Your task to perform on an android device: install app "Nova Launcher" Image 0: 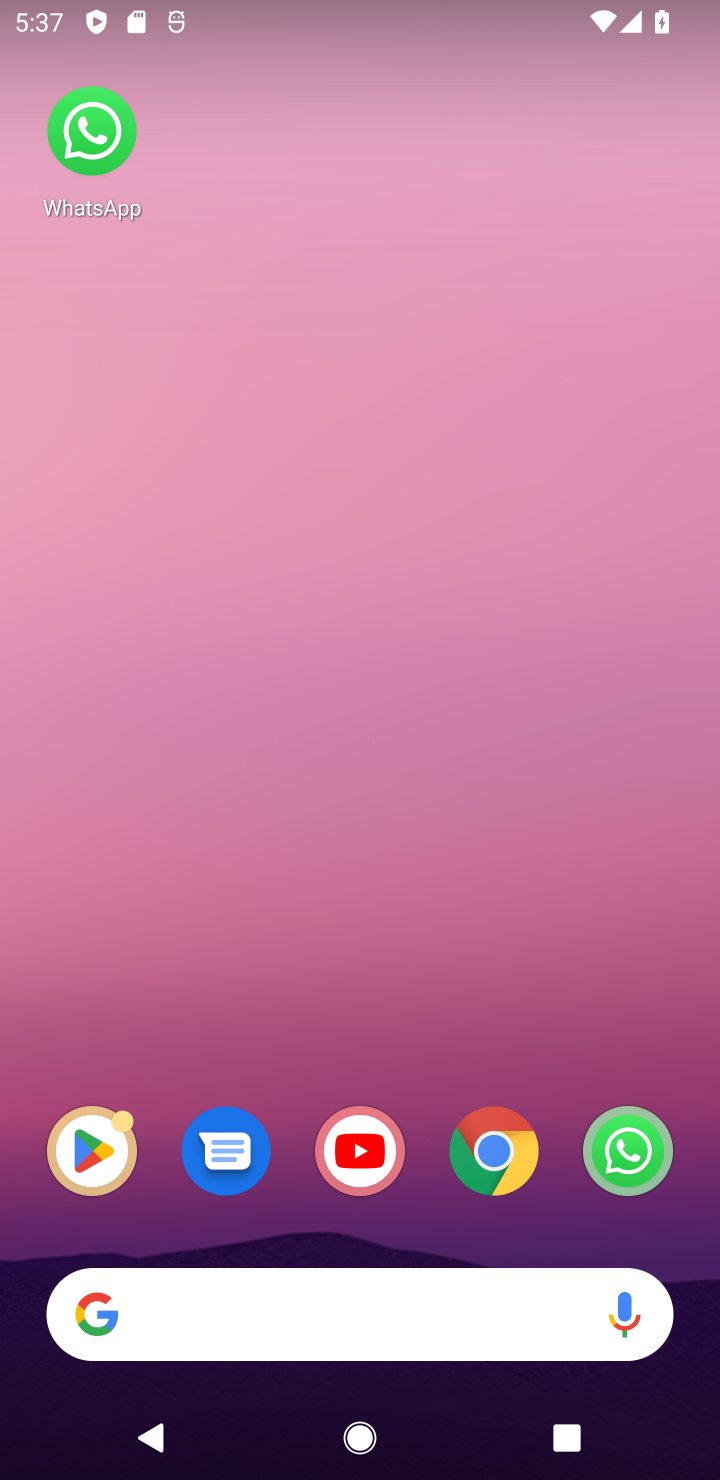
Step 0: click (108, 1161)
Your task to perform on an android device: install app "Nova Launcher" Image 1: 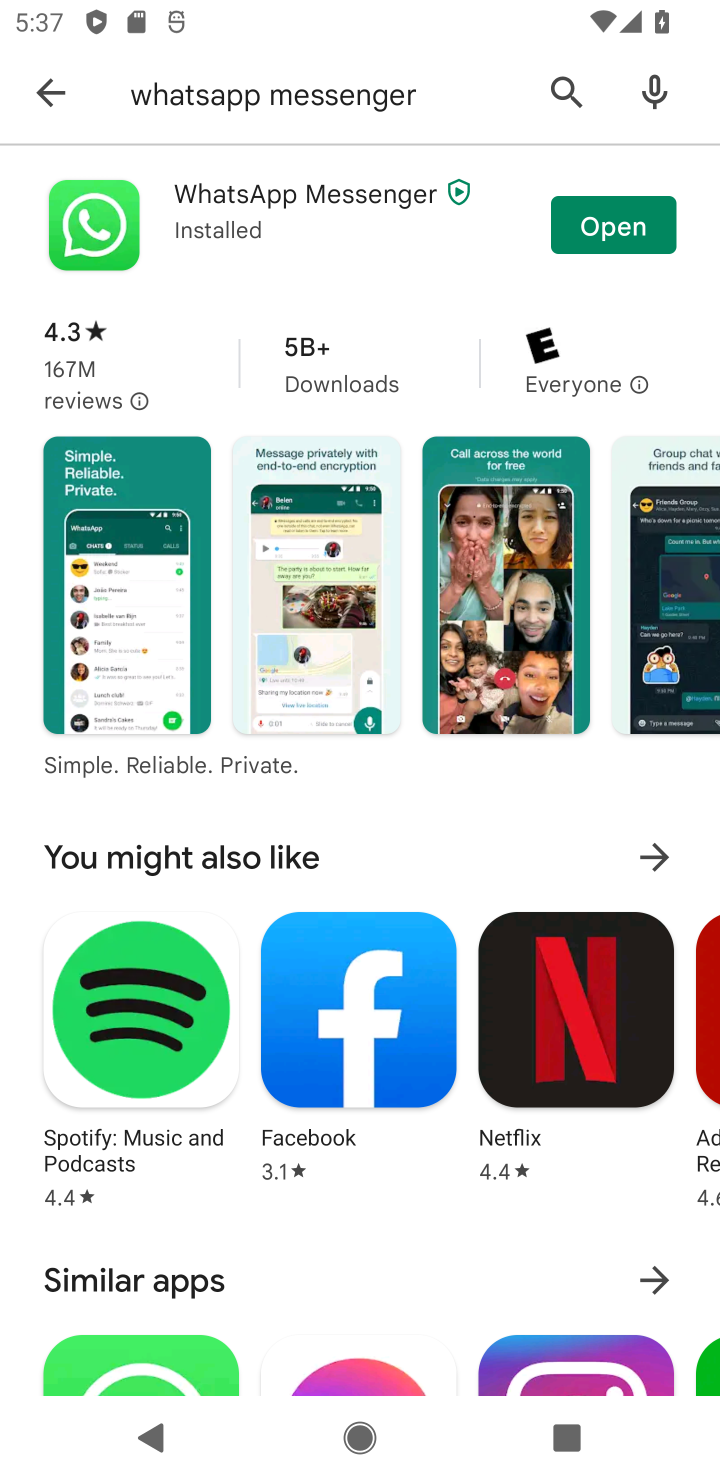
Step 1: click (570, 77)
Your task to perform on an android device: install app "Nova Launcher" Image 2: 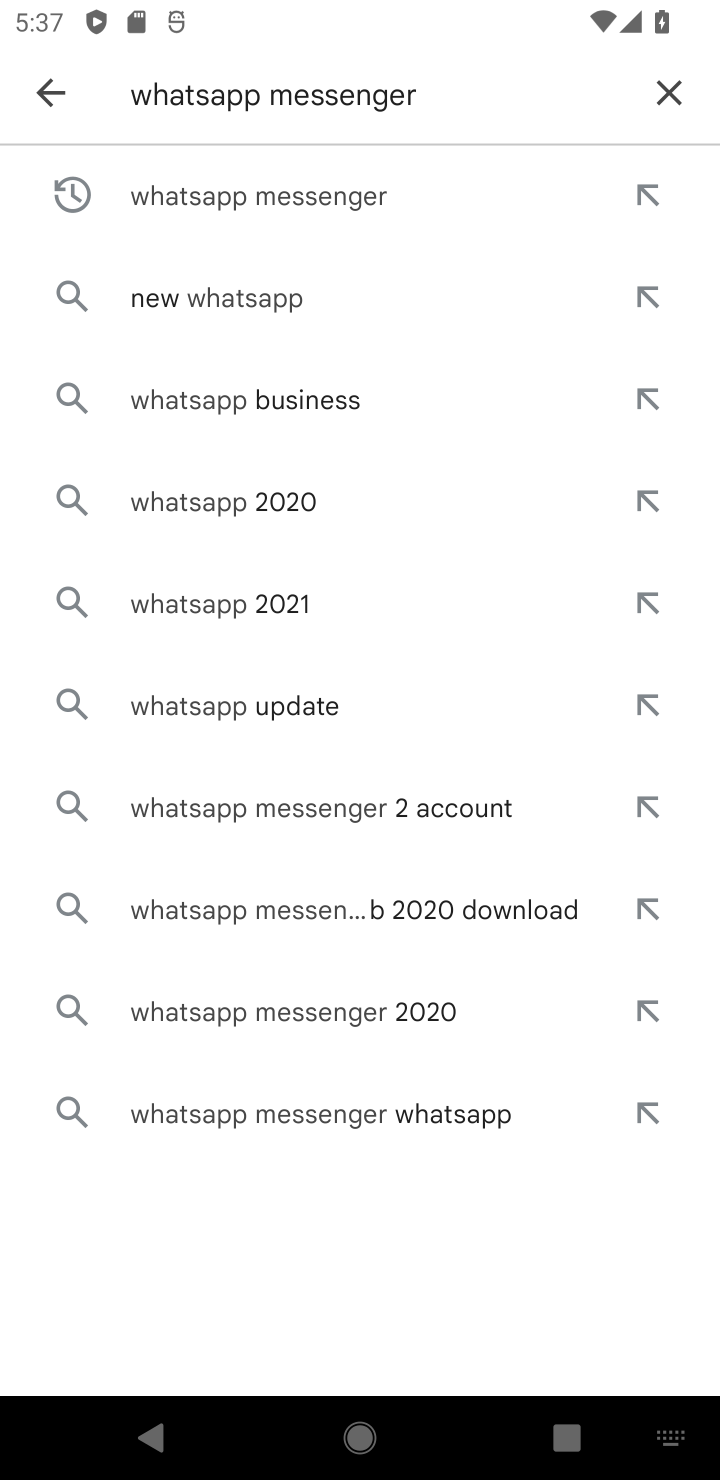
Step 2: click (671, 103)
Your task to perform on an android device: install app "Nova Launcher" Image 3: 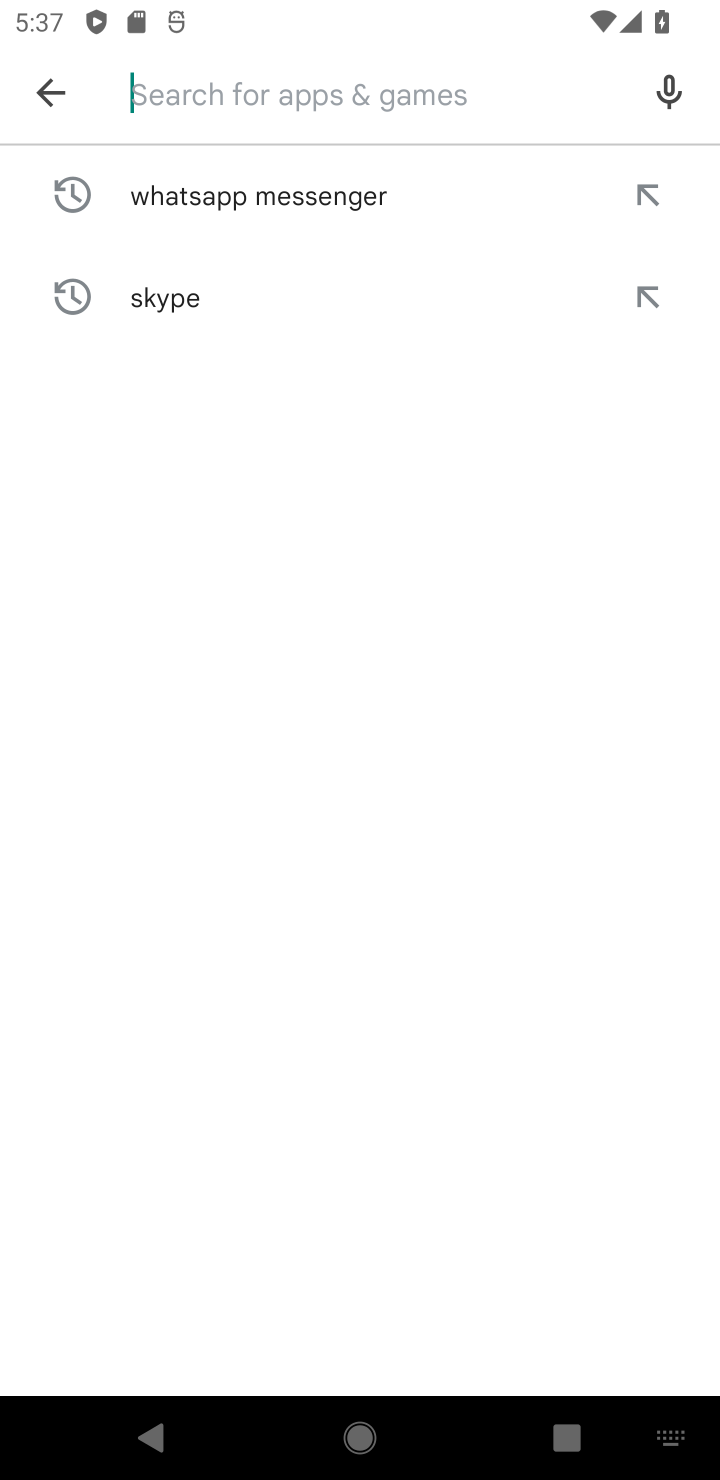
Step 3: type "Nova Launcher"
Your task to perform on an android device: install app "Nova Launcher" Image 4: 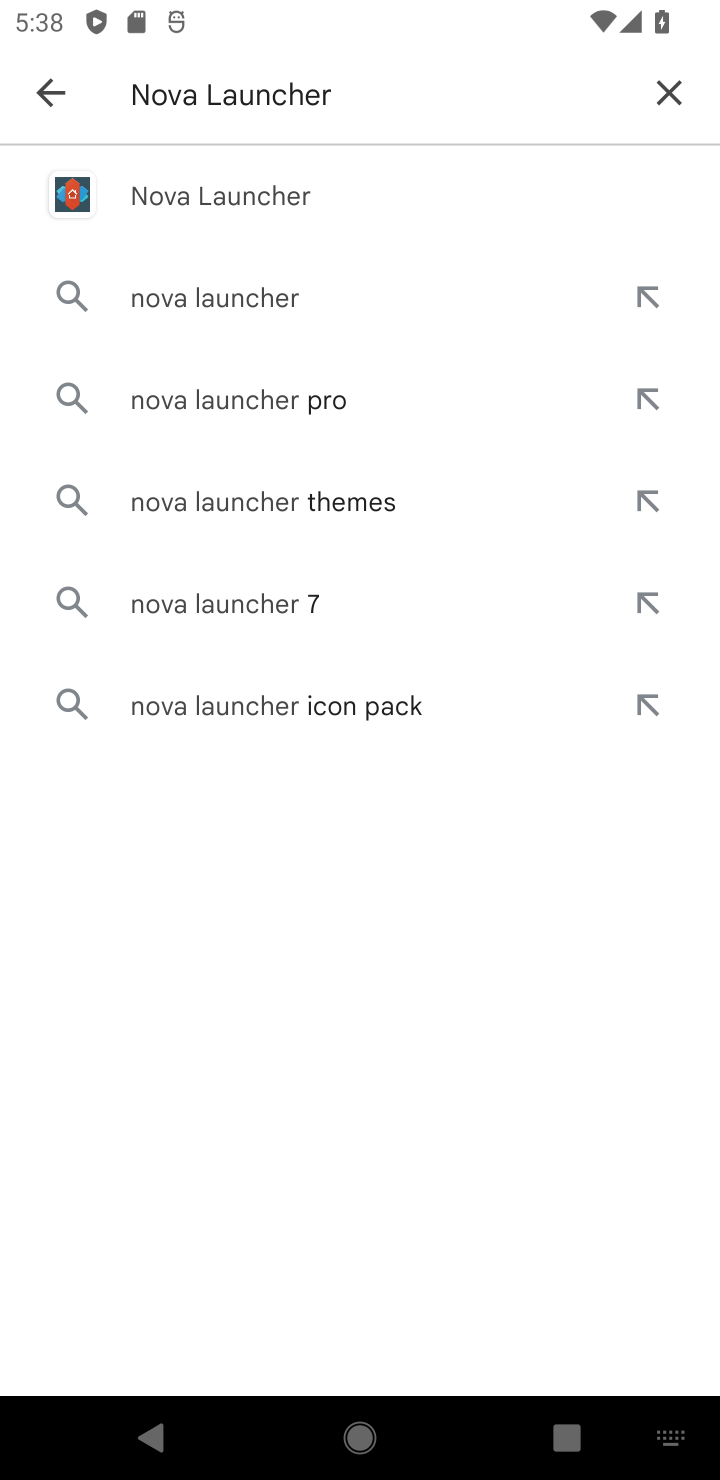
Step 4: click (259, 228)
Your task to perform on an android device: install app "Nova Launcher" Image 5: 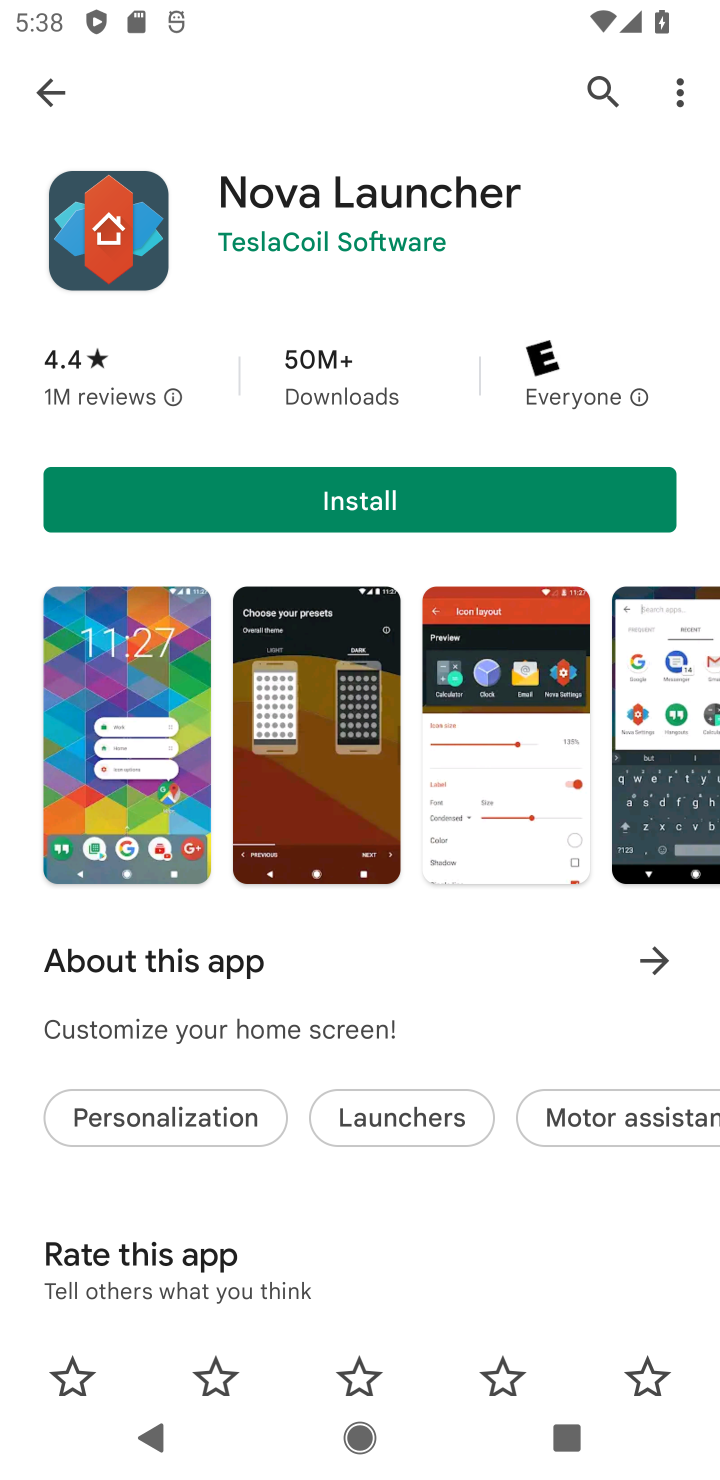
Step 5: click (345, 511)
Your task to perform on an android device: install app "Nova Launcher" Image 6: 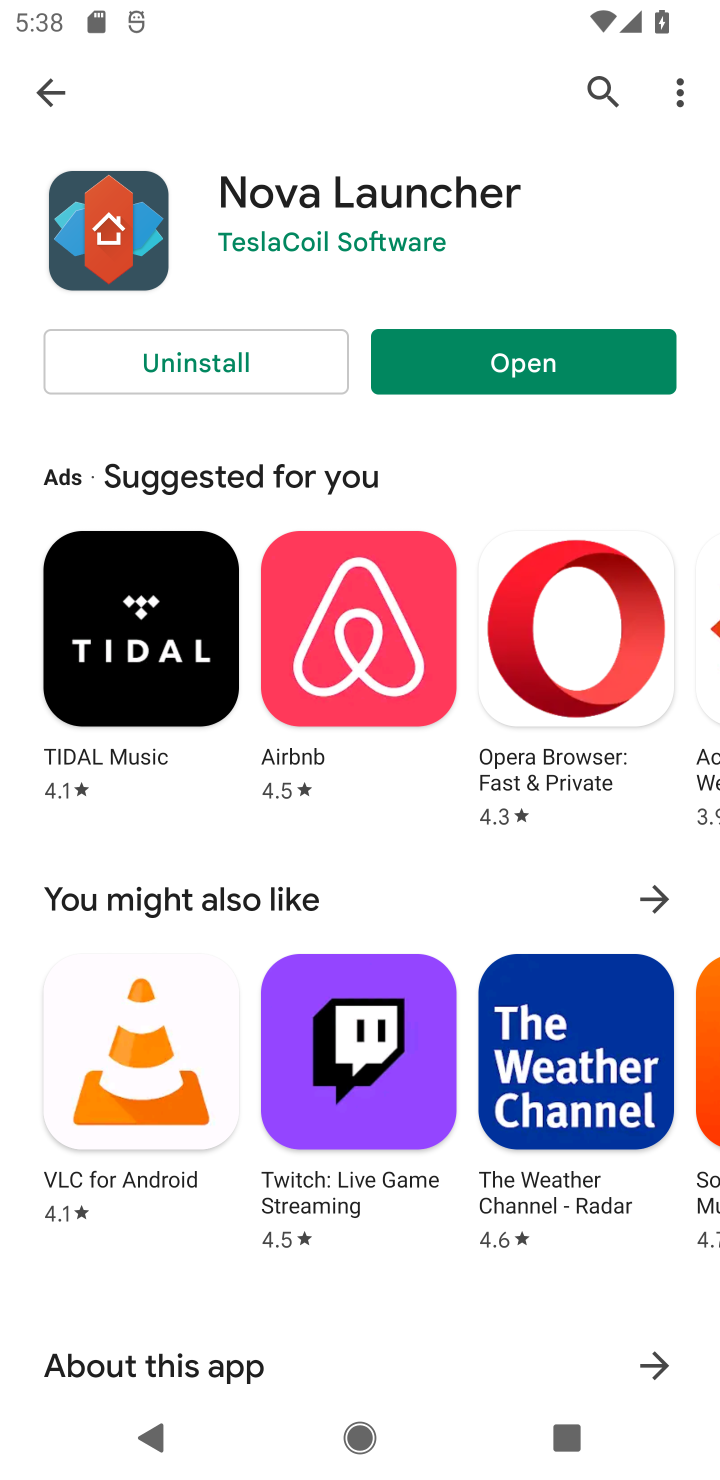
Step 6: task complete